Your task to perform on an android device: turn off javascript in the chrome app Image 0: 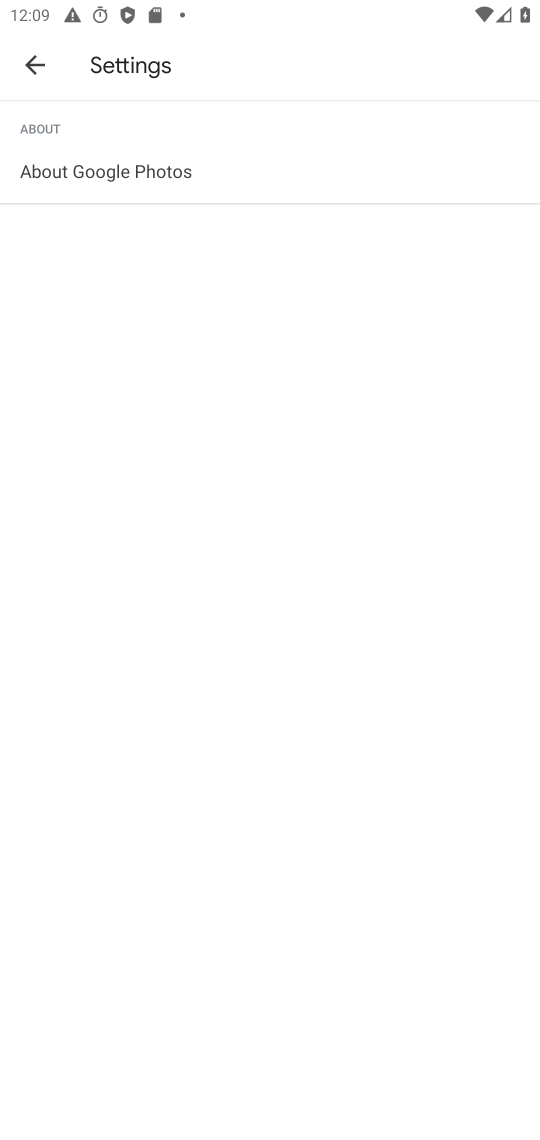
Step 0: press home button
Your task to perform on an android device: turn off javascript in the chrome app Image 1: 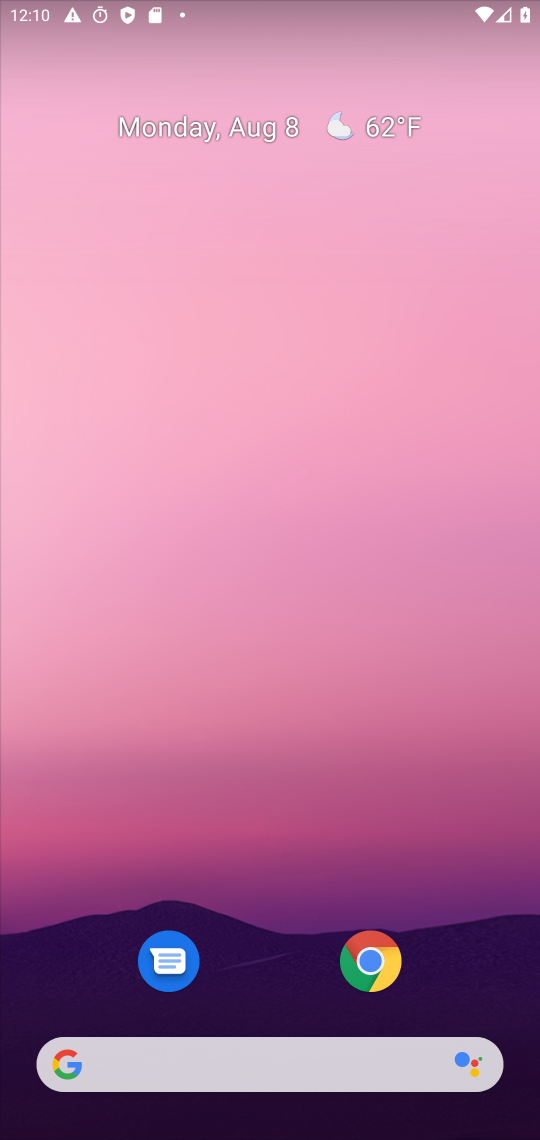
Step 1: drag from (219, 1064) to (345, 585)
Your task to perform on an android device: turn off javascript in the chrome app Image 2: 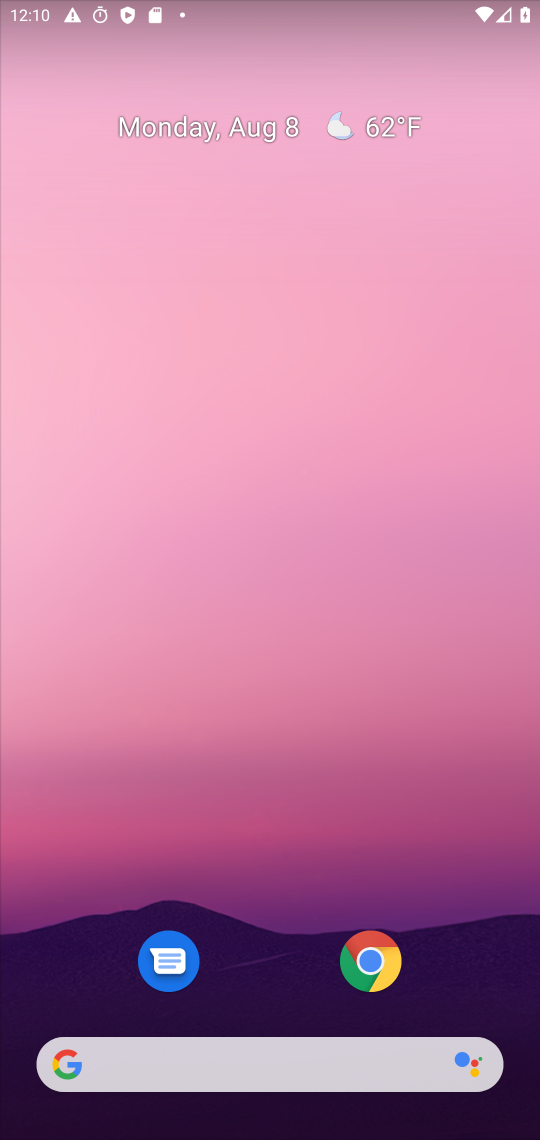
Step 2: drag from (304, 1083) to (163, 31)
Your task to perform on an android device: turn off javascript in the chrome app Image 3: 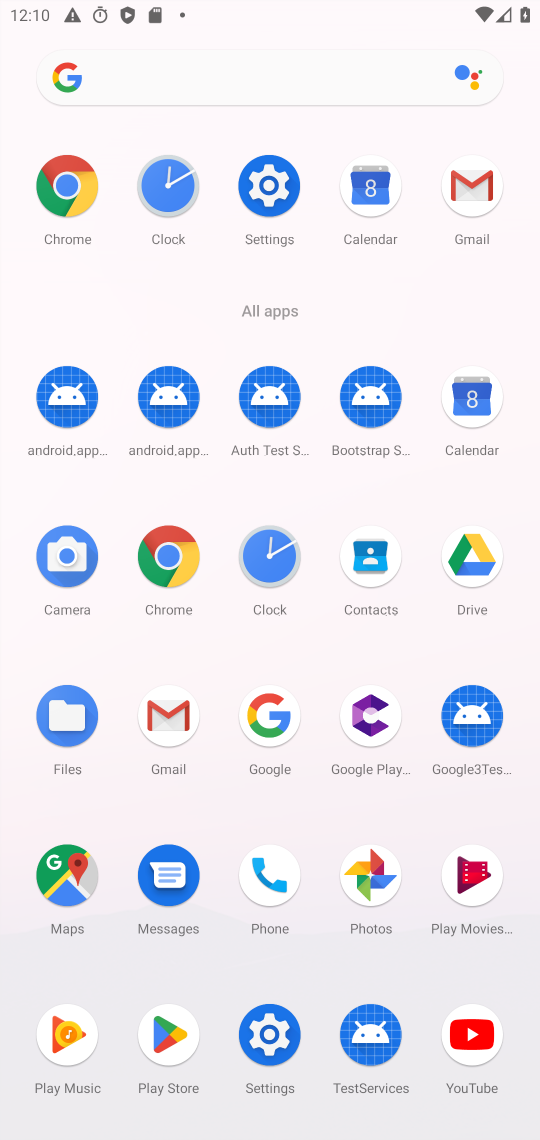
Step 3: click (163, 566)
Your task to perform on an android device: turn off javascript in the chrome app Image 4: 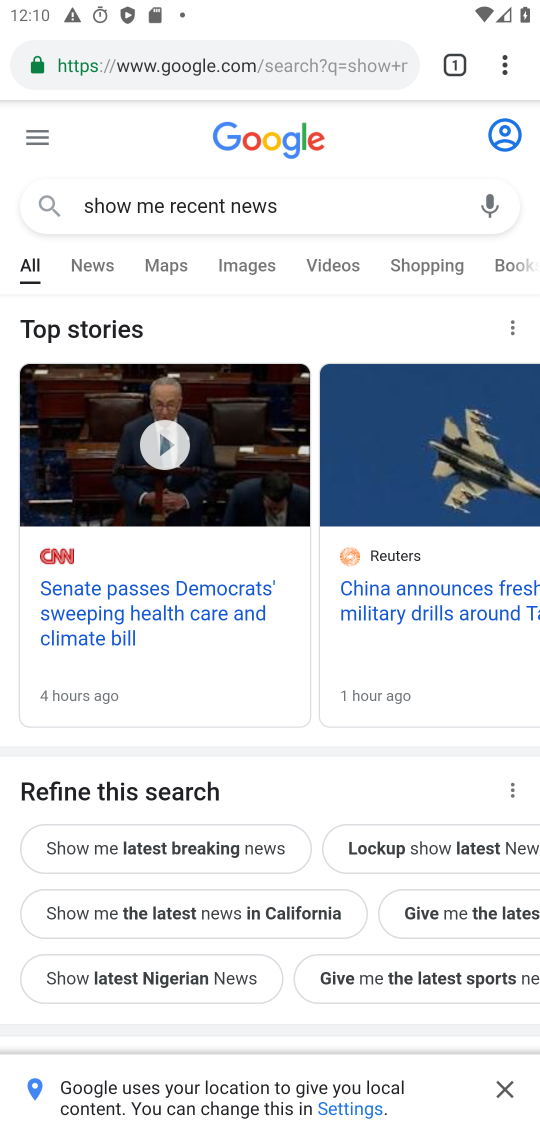
Step 4: click (506, 49)
Your task to perform on an android device: turn off javascript in the chrome app Image 5: 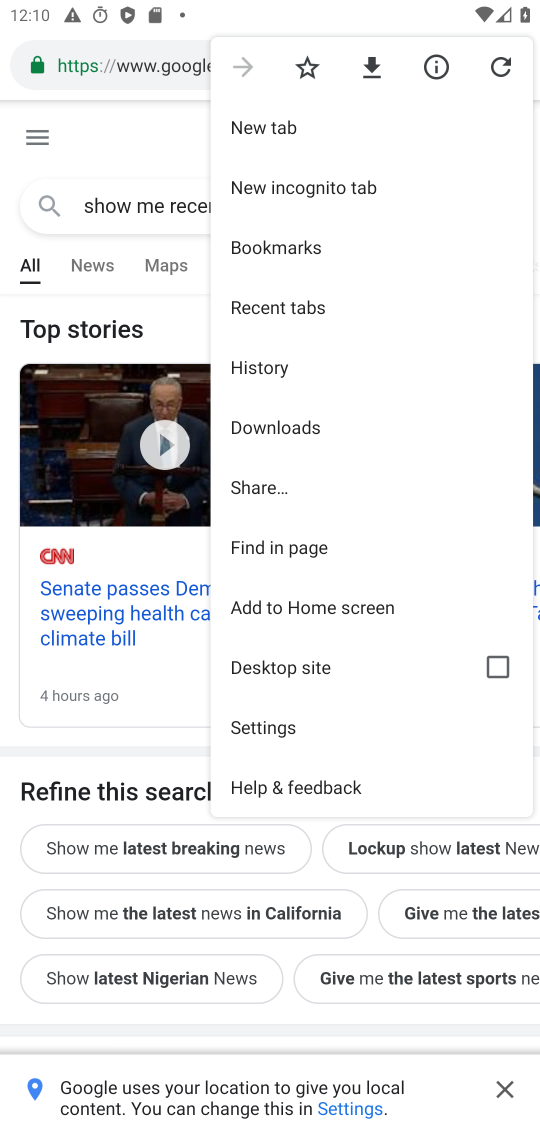
Step 5: click (266, 726)
Your task to perform on an android device: turn off javascript in the chrome app Image 6: 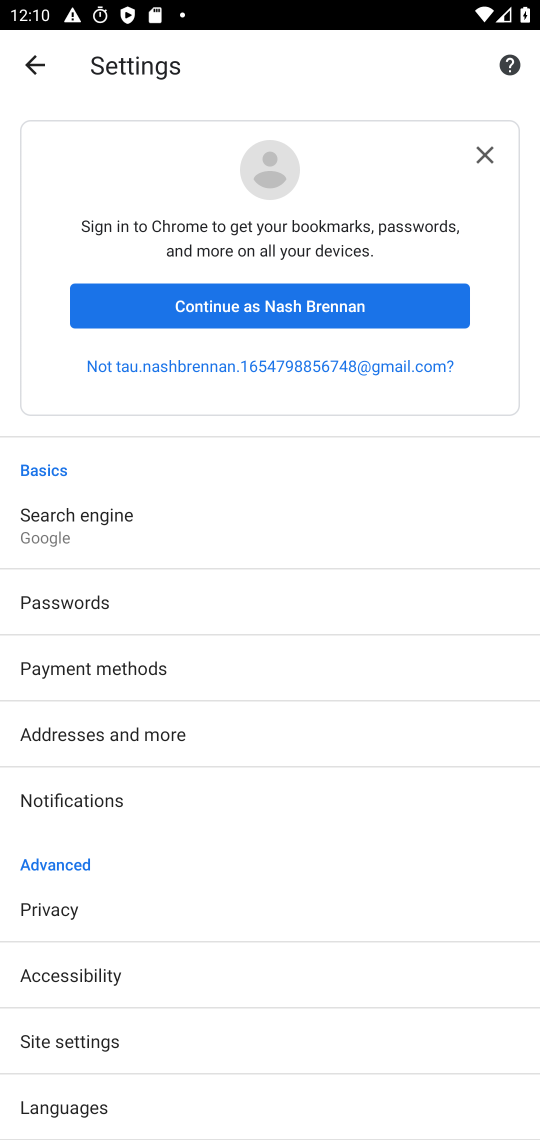
Step 6: click (118, 1053)
Your task to perform on an android device: turn off javascript in the chrome app Image 7: 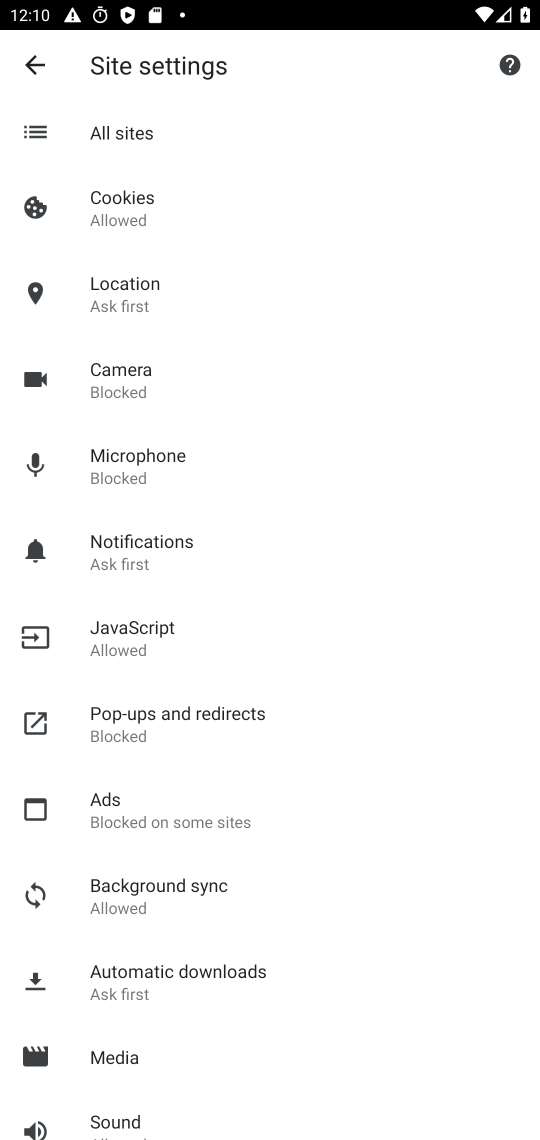
Step 7: click (222, 633)
Your task to perform on an android device: turn off javascript in the chrome app Image 8: 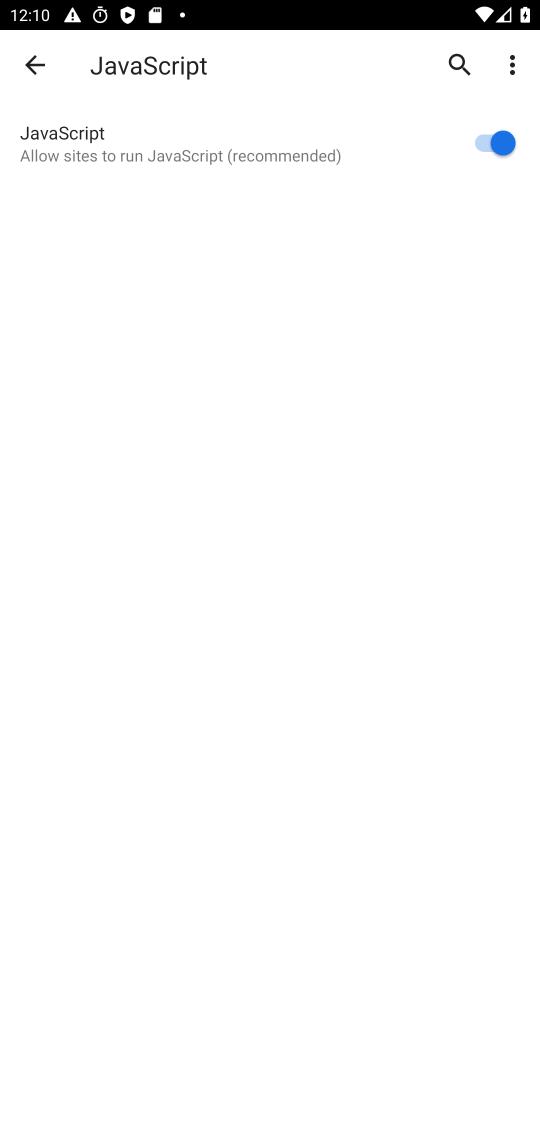
Step 8: click (490, 135)
Your task to perform on an android device: turn off javascript in the chrome app Image 9: 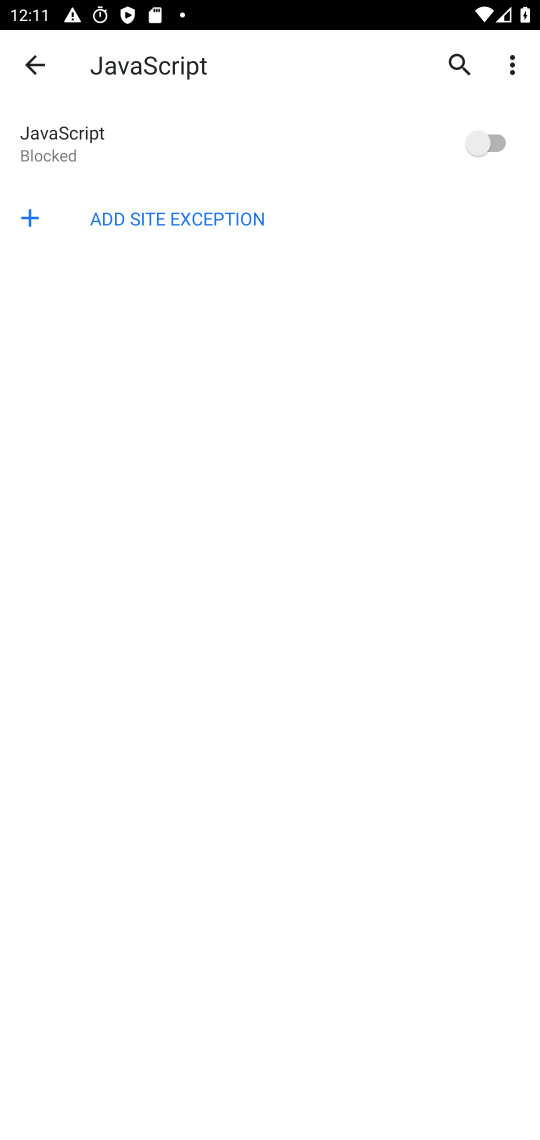
Step 9: task complete